Your task to perform on an android device: show emergency info Image 0: 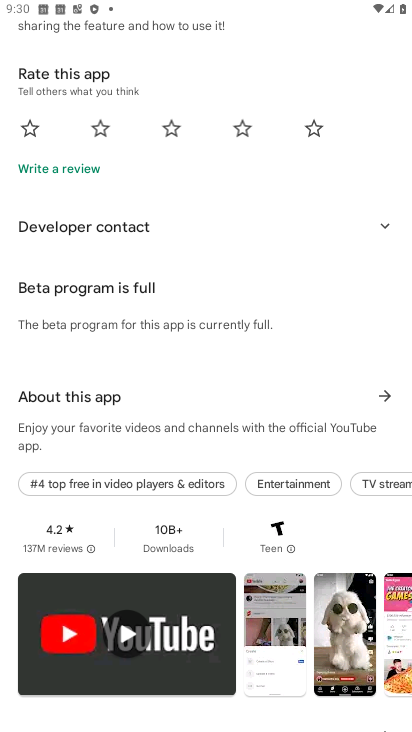
Step 0: press home button
Your task to perform on an android device: show emergency info Image 1: 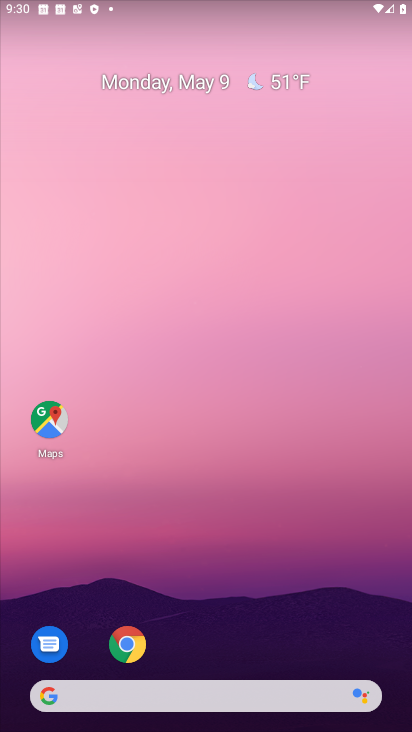
Step 1: drag from (226, 679) to (128, 9)
Your task to perform on an android device: show emergency info Image 2: 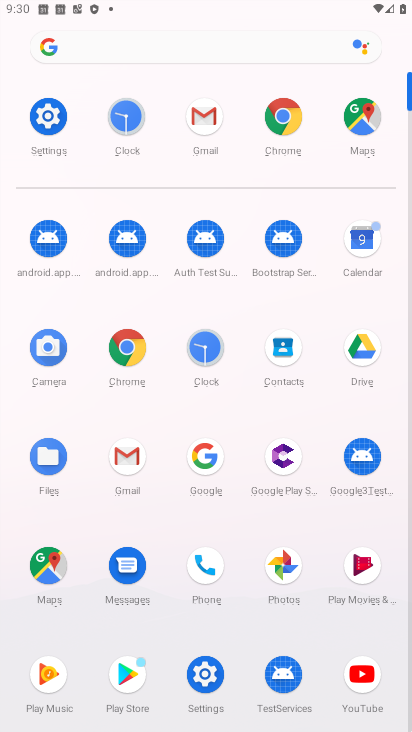
Step 2: click (42, 119)
Your task to perform on an android device: show emergency info Image 3: 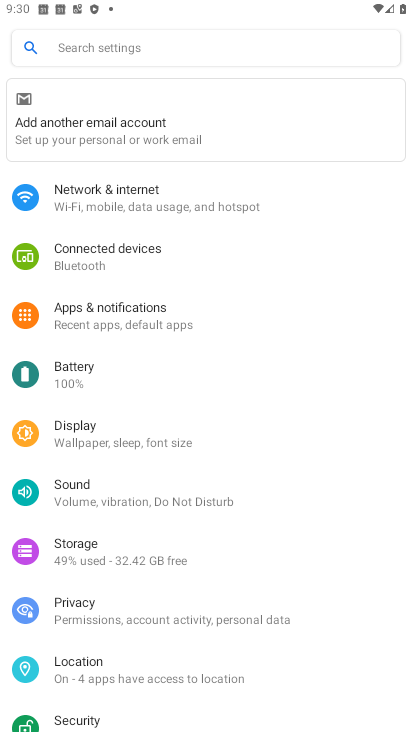
Step 3: drag from (225, 585) to (158, 7)
Your task to perform on an android device: show emergency info Image 4: 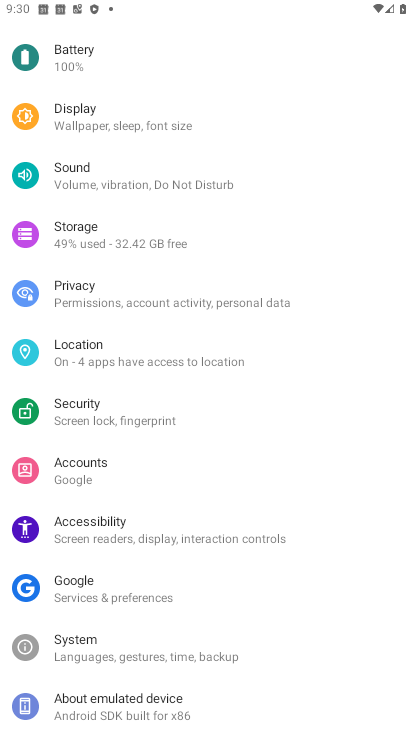
Step 4: click (99, 714)
Your task to perform on an android device: show emergency info Image 5: 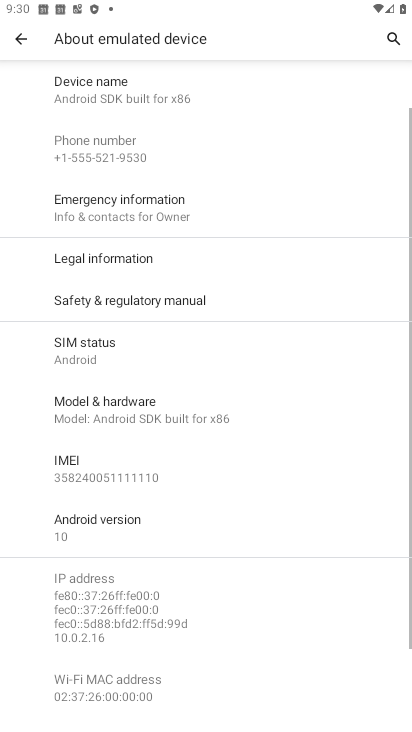
Step 5: click (156, 214)
Your task to perform on an android device: show emergency info Image 6: 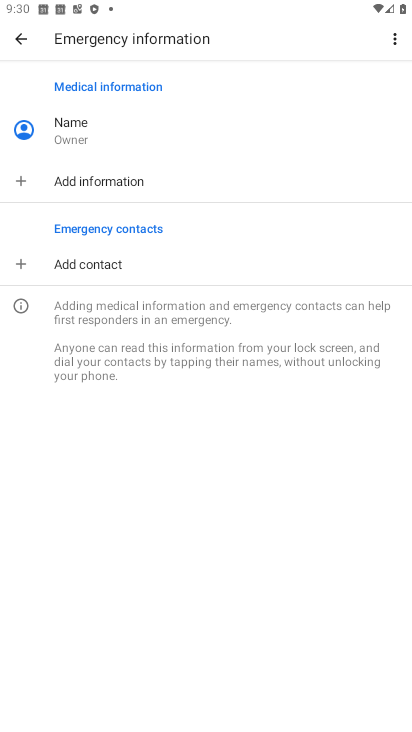
Step 6: task complete